Your task to perform on an android device: stop showing notifications on the lock screen Image 0: 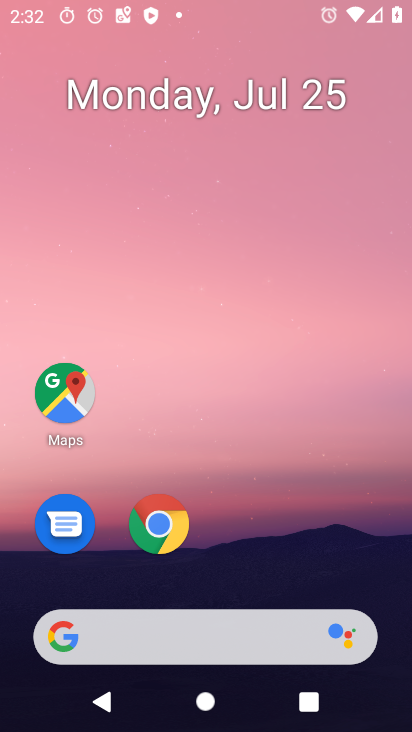
Step 0: press home button
Your task to perform on an android device: stop showing notifications on the lock screen Image 1: 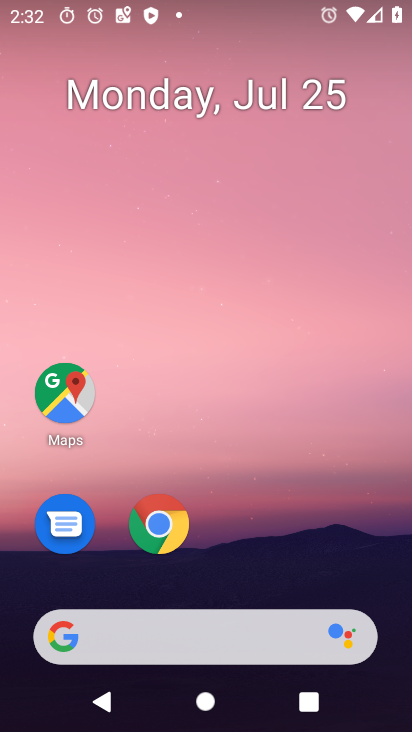
Step 1: drag from (212, 581) to (71, 85)
Your task to perform on an android device: stop showing notifications on the lock screen Image 2: 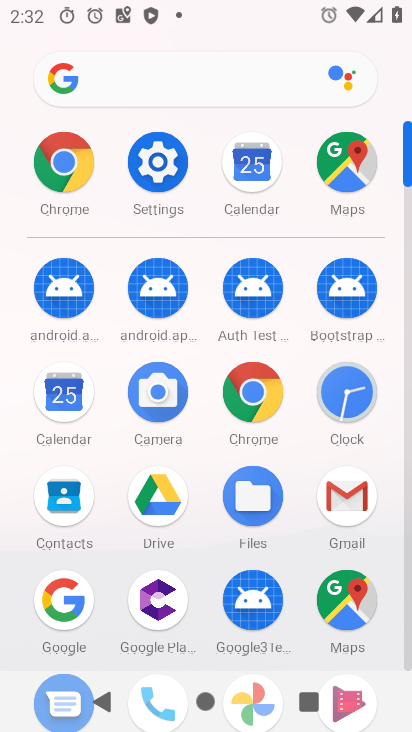
Step 2: click (151, 161)
Your task to perform on an android device: stop showing notifications on the lock screen Image 3: 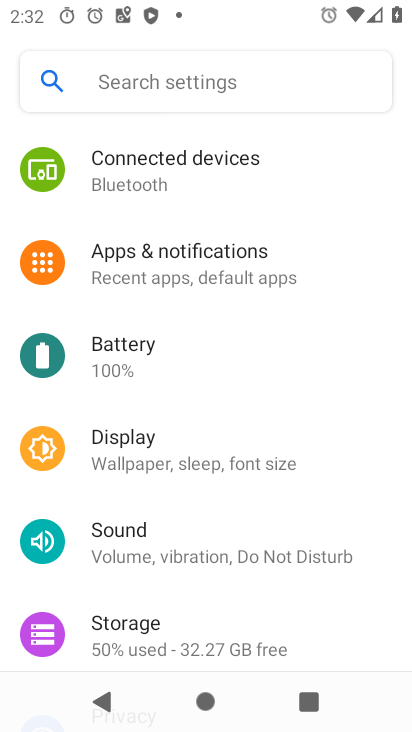
Step 3: click (162, 263)
Your task to perform on an android device: stop showing notifications on the lock screen Image 4: 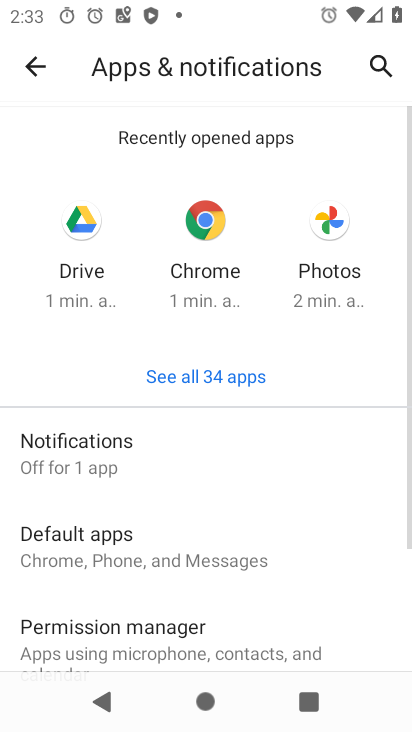
Step 4: click (58, 445)
Your task to perform on an android device: stop showing notifications on the lock screen Image 5: 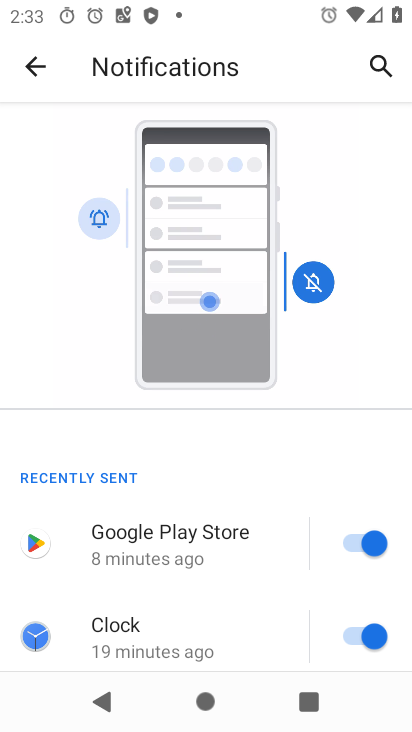
Step 5: drag from (250, 583) to (86, 1)
Your task to perform on an android device: stop showing notifications on the lock screen Image 6: 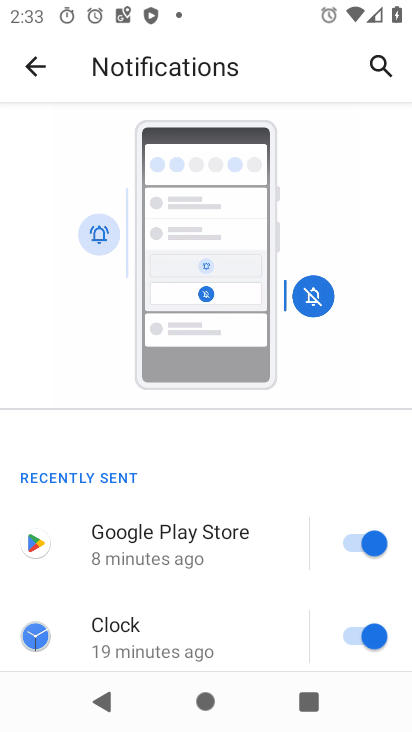
Step 6: drag from (279, 630) to (400, 217)
Your task to perform on an android device: stop showing notifications on the lock screen Image 7: 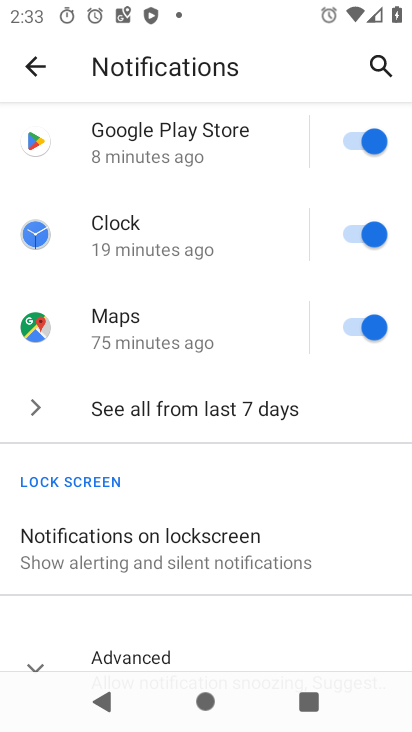
Step 7: click (91, 549)
Your task to perform on an android device: stop showing notifications on the lock screen Image 8: 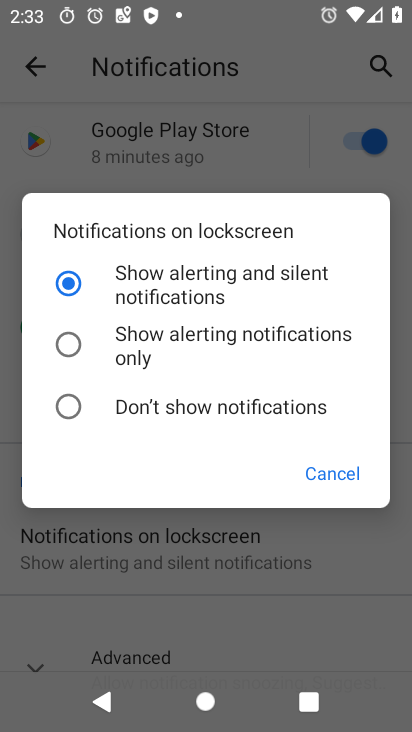
Step 8: click (65, 398)
Your task to perform on an android device: stop showing notifications on the lock screen Image 9: 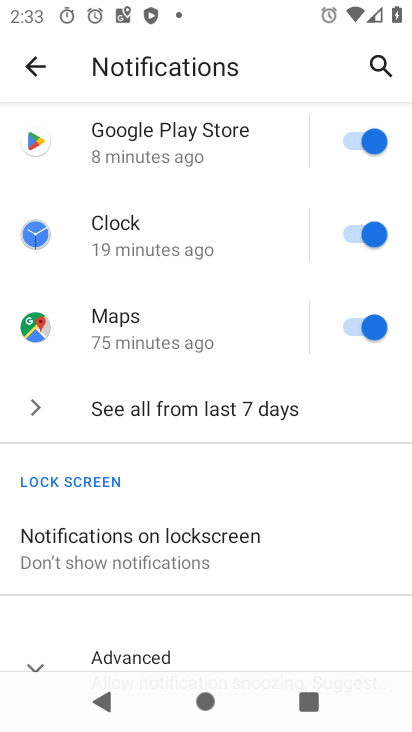
Step 9: task complete